Your task to perform on an android device: Open accessibility settings Image 0: 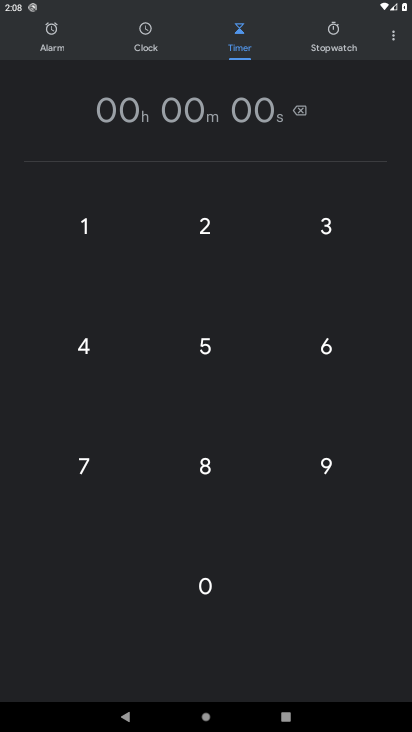
Step 0: press home button
Your task to perform on an android device: Open accessibility settings Image 1: 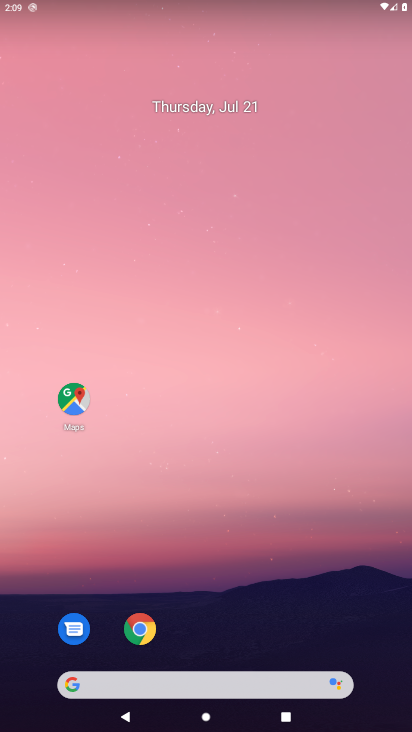
Step 1: drag from (12, 688) to (189, 155)
Your task to perform on an android device: Open accessibility settings Image 2: 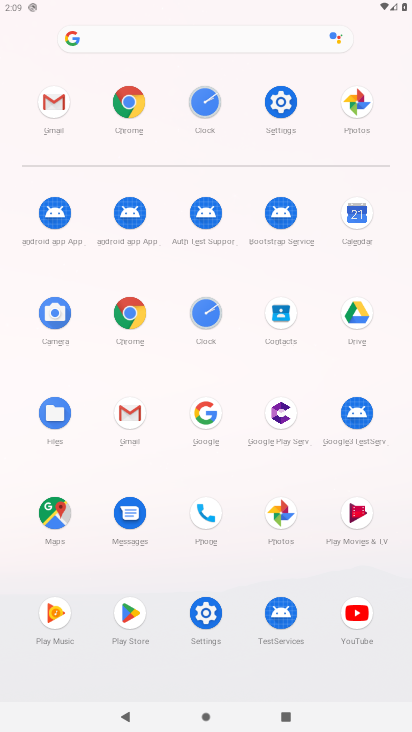
Step 2: click (225, 636)
Your task to perform on an android device: Open accessibility settings Image 3: 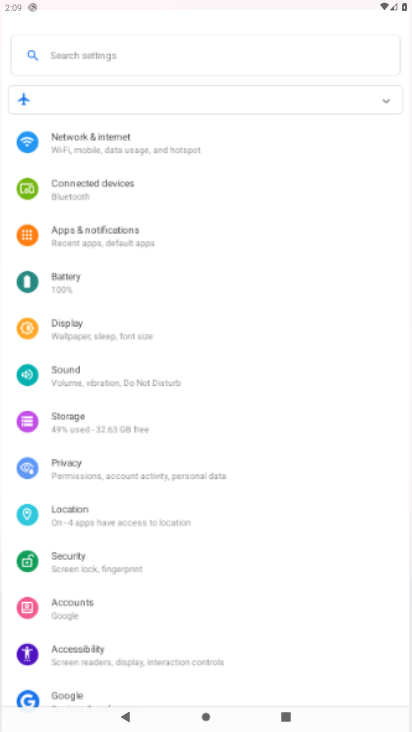
Step 3: click (197, 622)
Your task to perform on an android device: Open accessibility settings Image 4: 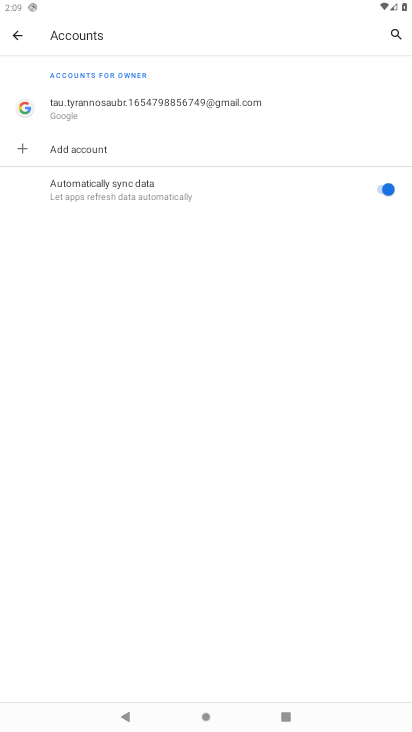
Step 4: click (15, 42)
Your task to perform on an android device: Open accessibility settings Image 5: 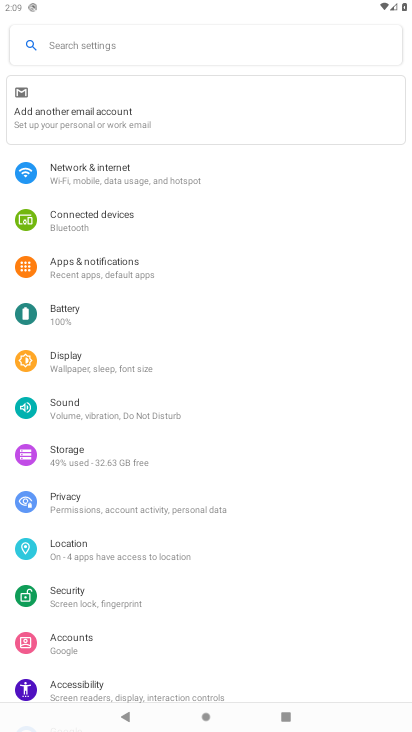
Step 5: click (77, 687)
Your task to perform on an android device: Open accessibility settings Image 6: 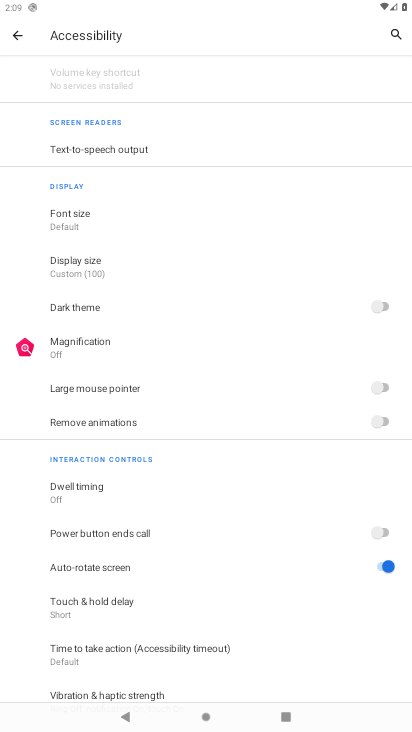
Step 6: task complete